Your task to perform on an android device: Turn off the flashlight Image 0: 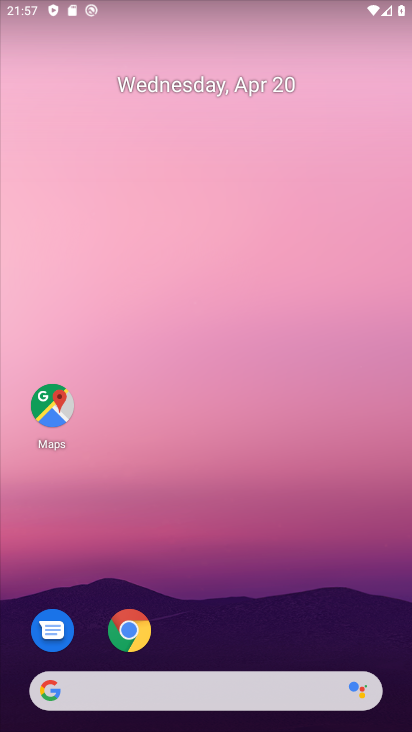
Step 0: drag from (191, 144) to (154, 376)
Your task to perform on an android device: Turn off the flashlight Image 1: 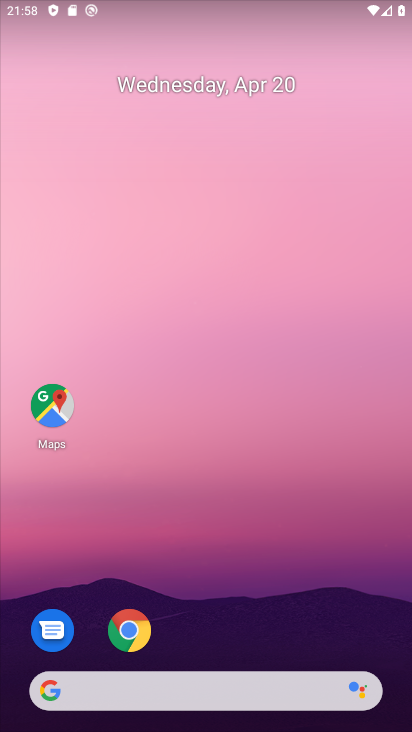
Step 1: task complete